Your task to perform on an android device: What is the capital of Canada? Image 0: 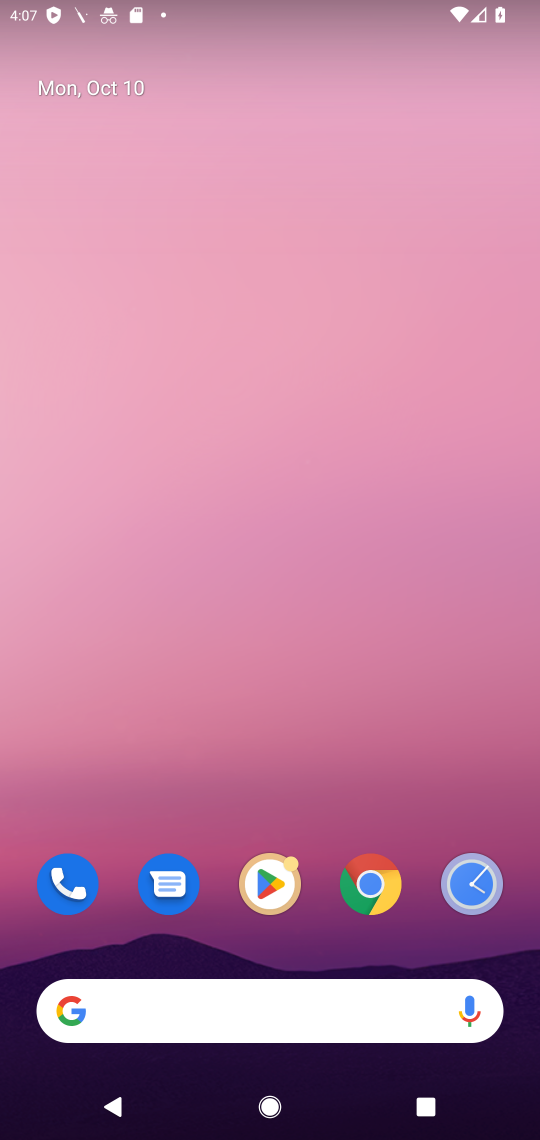
Step 0: click (279, 988)
Your task to perform on an android device: What is the capital of Canada? Image 1: 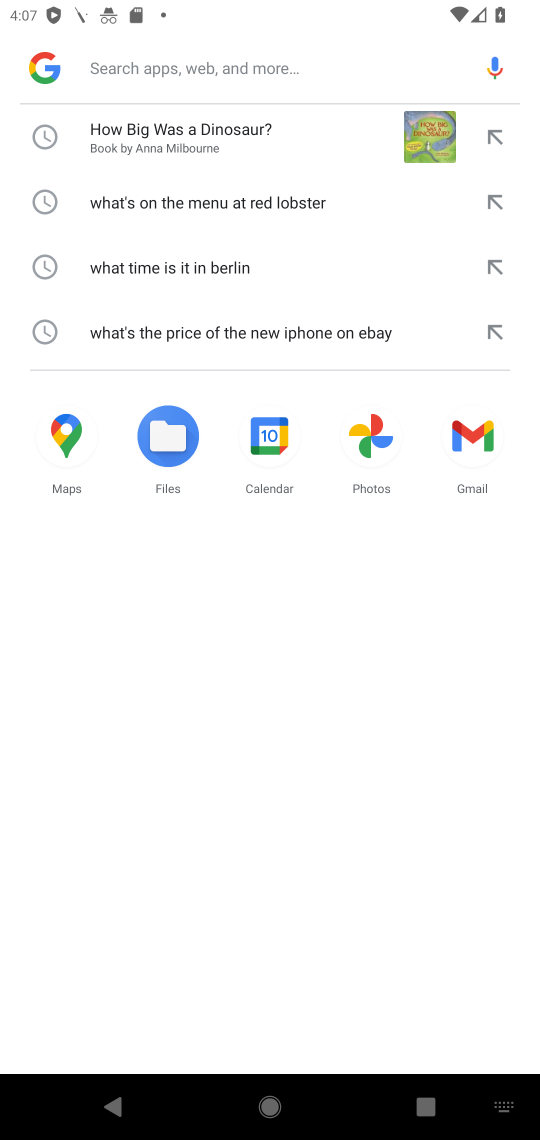
Step 1: type "What is the capital of Canada?"
Your task to perform on an android device: What is the capital of Canada? Image 2: 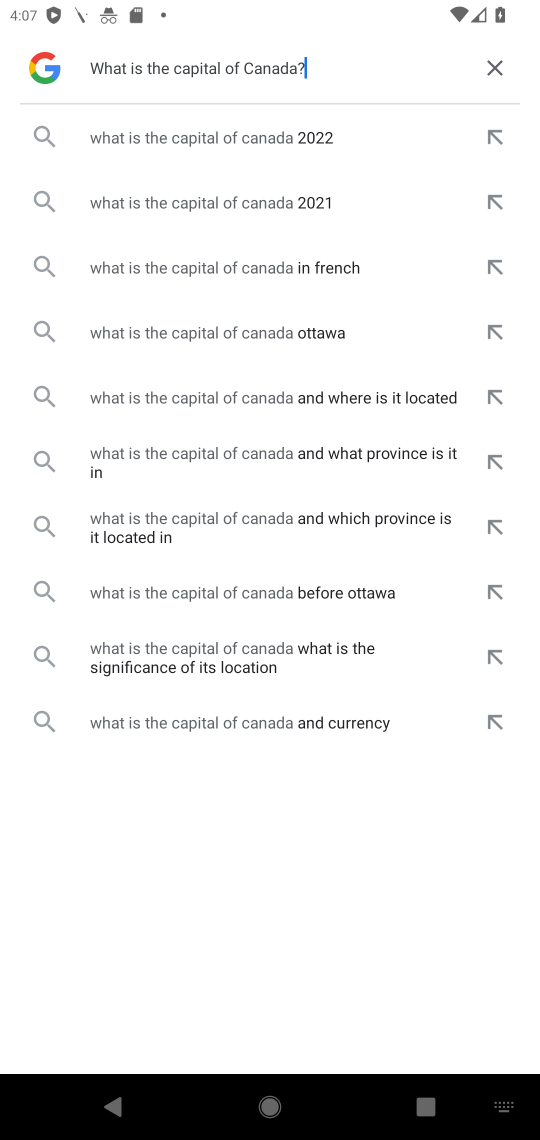
Step 2: click (213, 151)
Your task to perform on an android device: What is the capital of Canada? Image 3: 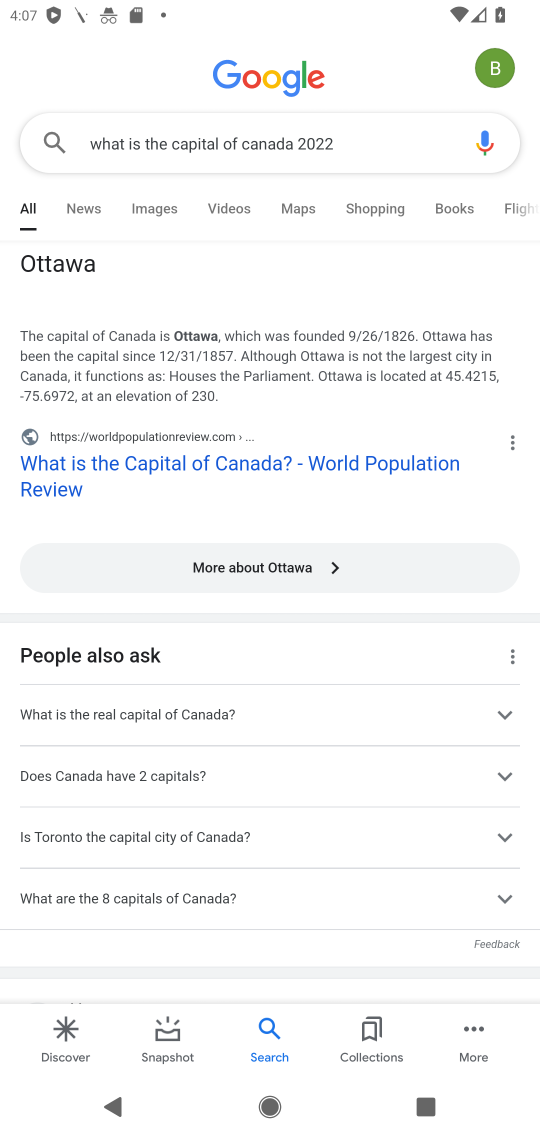
Step 3: task complete